Your task to perform on an android device: Open settings Image 0: 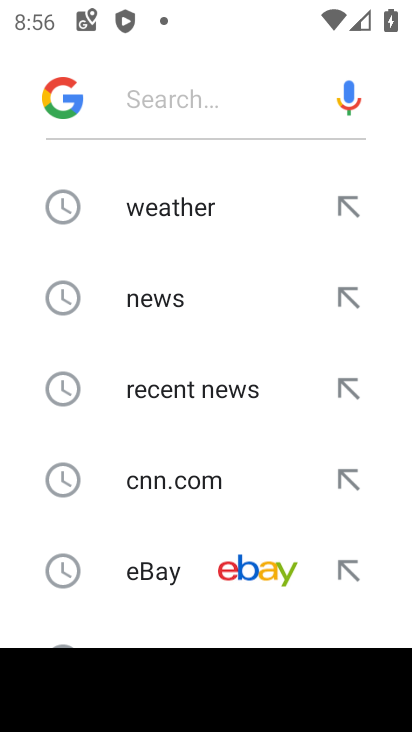
Step 0: press back button
Your task to perform on an android device: Open settings Image 1: 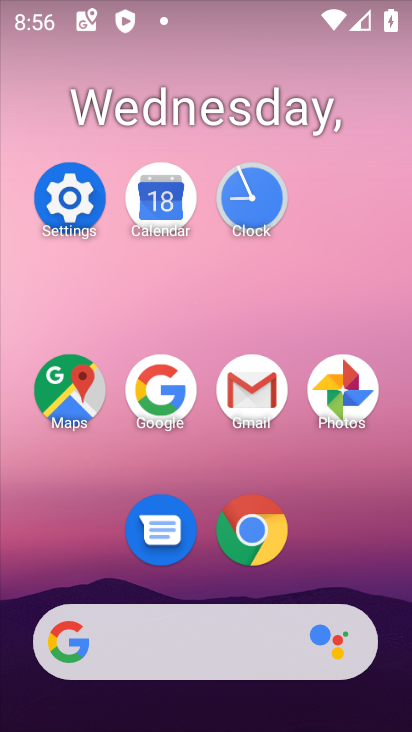
Step 1: click (74, 192)
Your task to perform on an android device: Open settings Image 2: 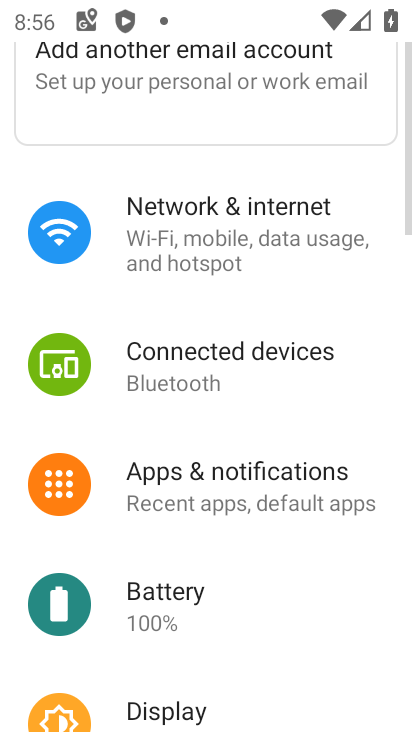
Step 2: task complete